Your task to perform on an android device: turn on javascript in the chrome app Image 0: 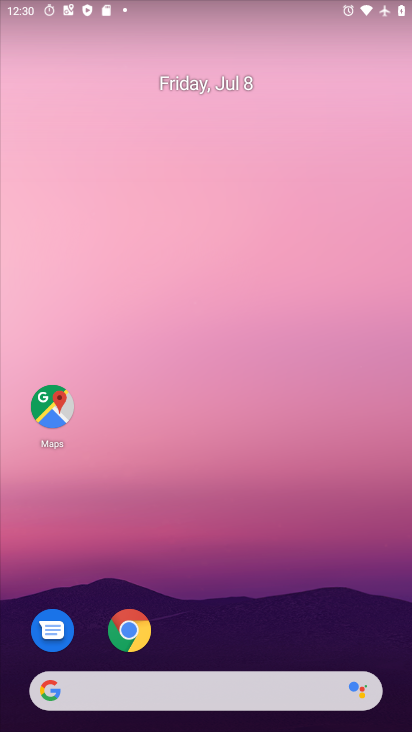
Step 0: click (123, 619)
Your task to perform on an android device: turn on javascript in the chrome app Image 1: 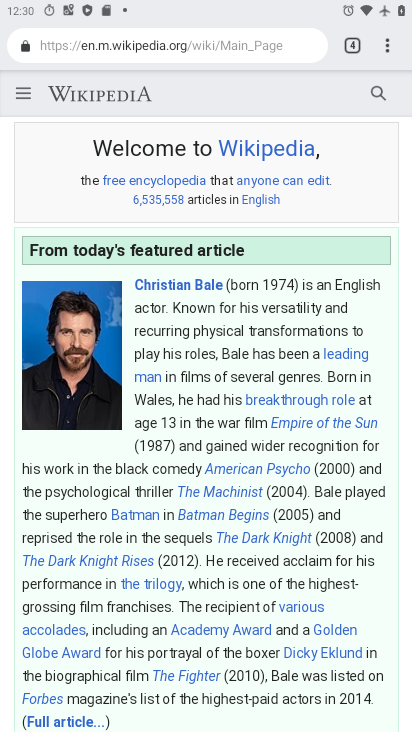
Step 1: click (390, 54)
Your task to perform on an android device: turn on javascript in the chrome app Image 2: 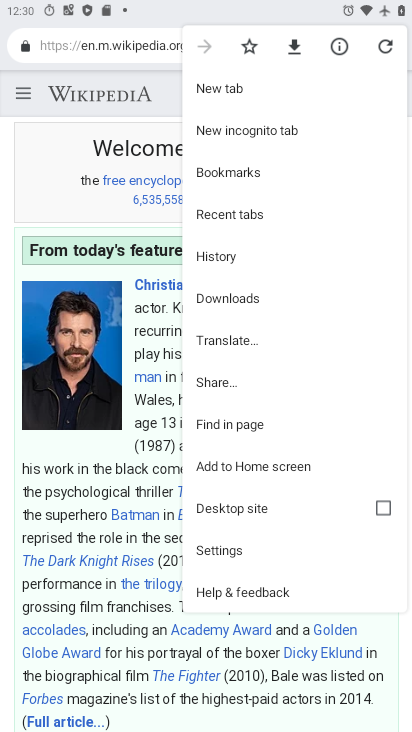
Step 2: click (231, 545)
Your task to perform on an android device: turn on javascript in the chrome app Image 3: 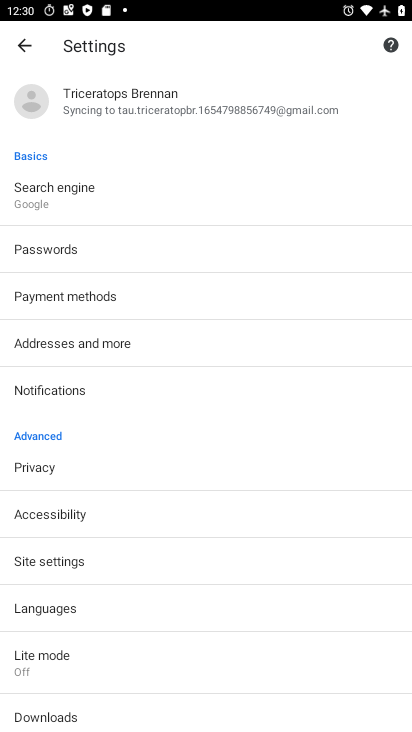
Step 3: click (86, 558)
Your task to perform on an android device: turn on javascript in the chrome app Image 4: 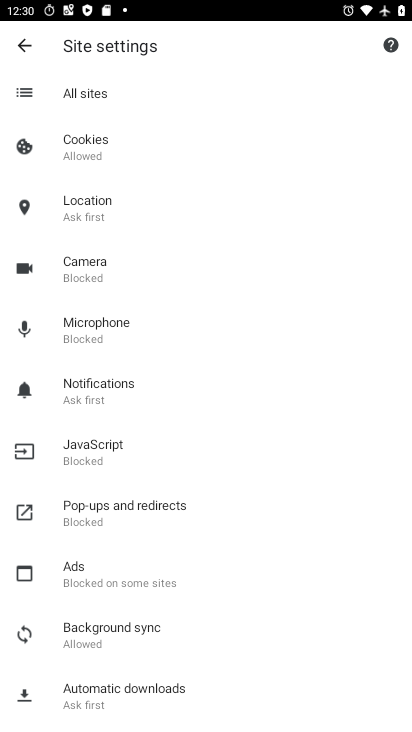
Step 4: click (127, 468)
Your task to perform on an android device: turn on javascript in the chrome app Image 5: 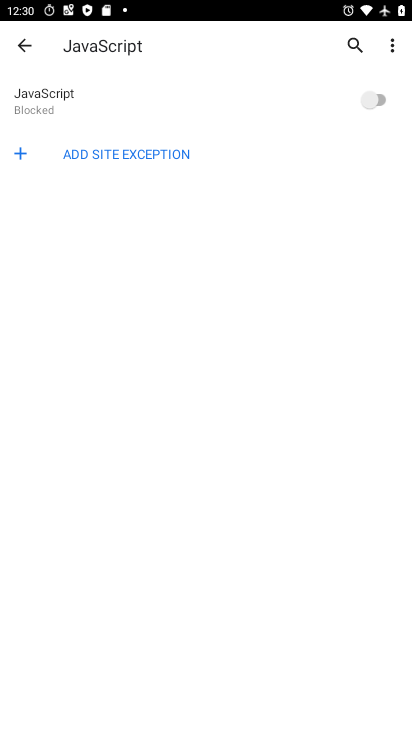
Step 5: click (381, 105)
Your task to perform on an android device: turn on javascript in the chrome app Image 6: 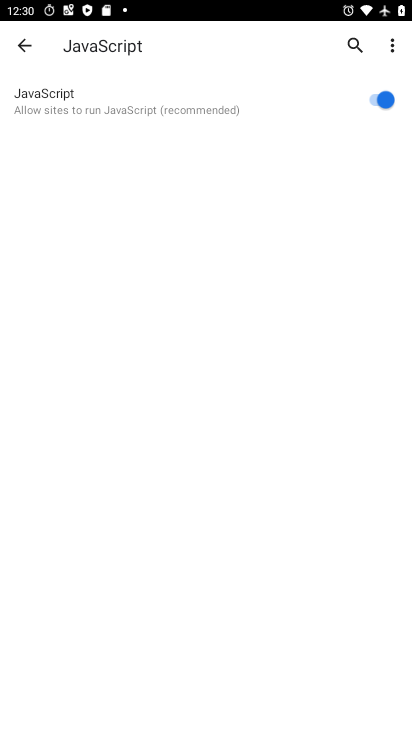
Step 6: task complete